Your task to perform on an android device: Go to battery settings Image 0: 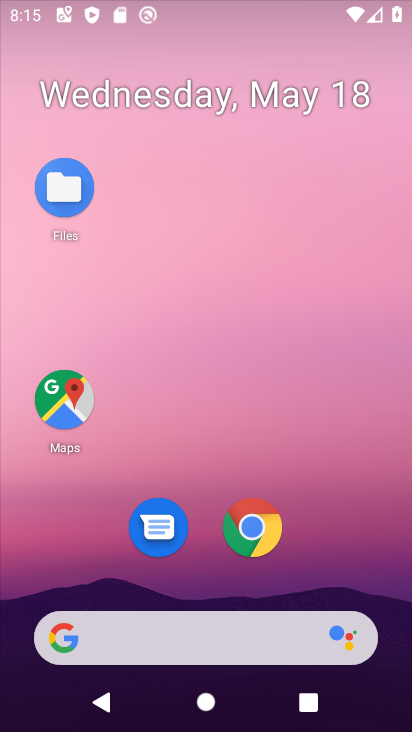
Step 0: drag from (306, 437) to (201, 90)
Your task to perform on an android device: Go to battery settings Image 1: 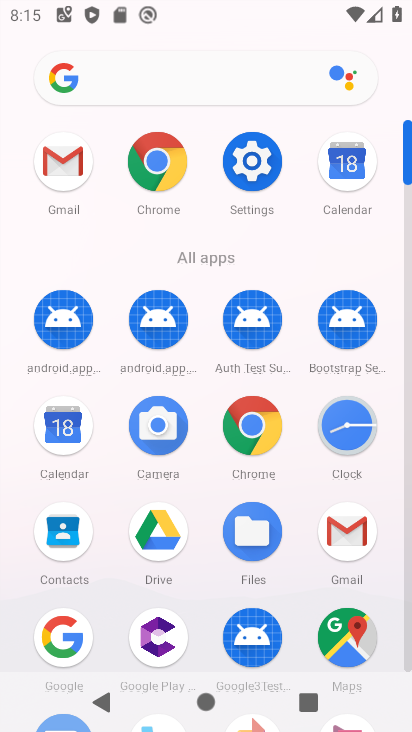
Step 1: click (256, 155)
Your task to perform on an android device: Go to battery settings Image 2: 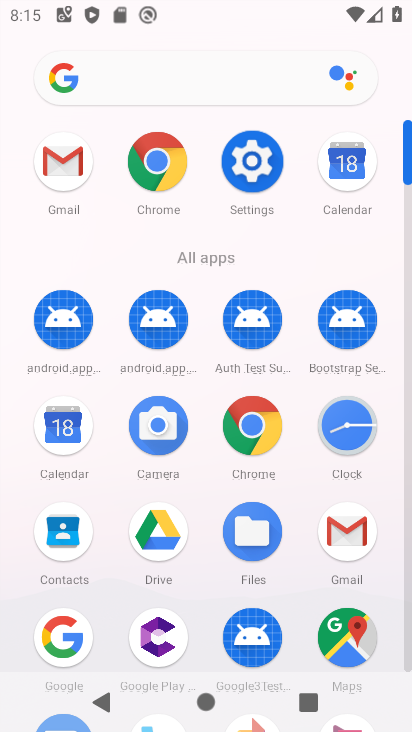
Step 2: click (257, 154)
Your task to perform on an android device: Go to battery settings Image 3: 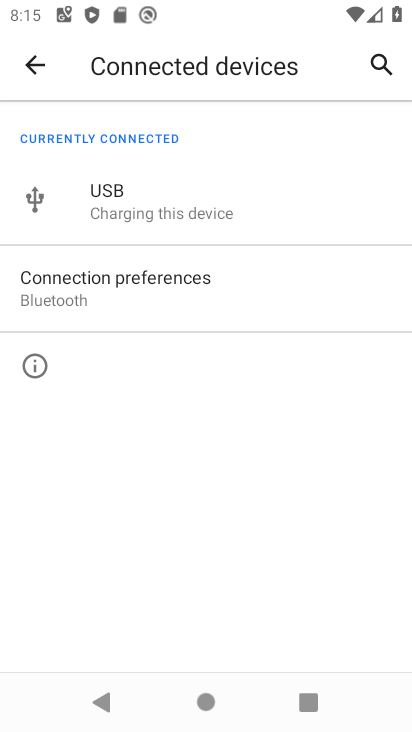
Step 3: click (27, 66)
Your task to perform on an android device: Go to battery settings Image 4: 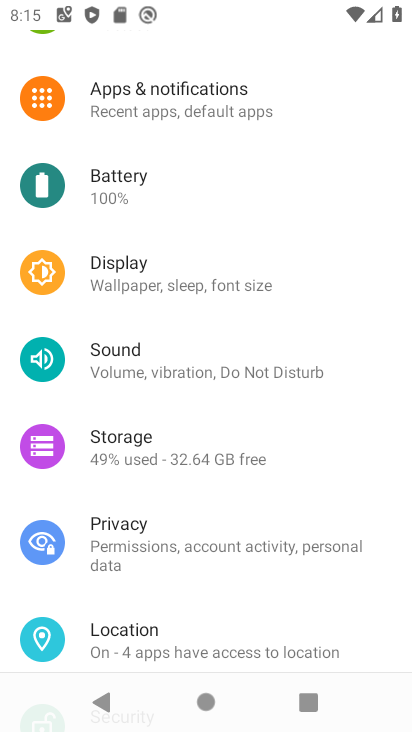
Step 4: click (109, 183)
Your task to perform on an android device: Go to battery settings Image 5: 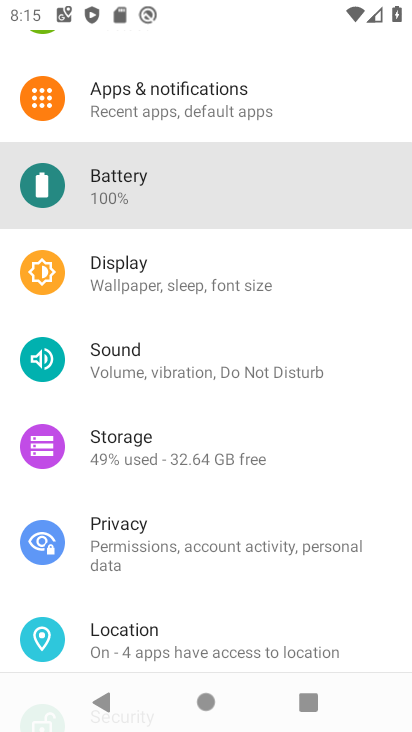
Step 5: click (109, 182)
Your task to perform on an android device: Go to battery settings Image 6: 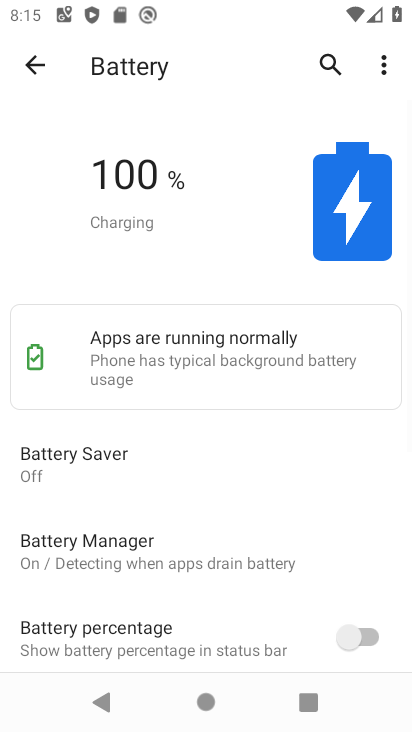
Step 6: task complete